Your task to perform on an android device: turn off location history Image 0: 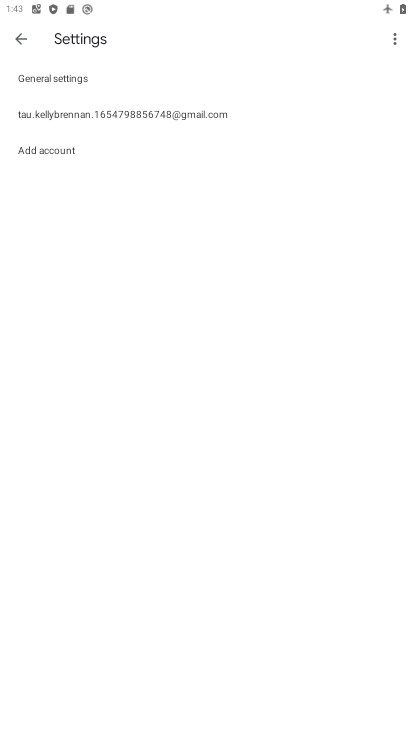
Step 0: press home button
Your task to perform on an android device: turn off location history Image 1: 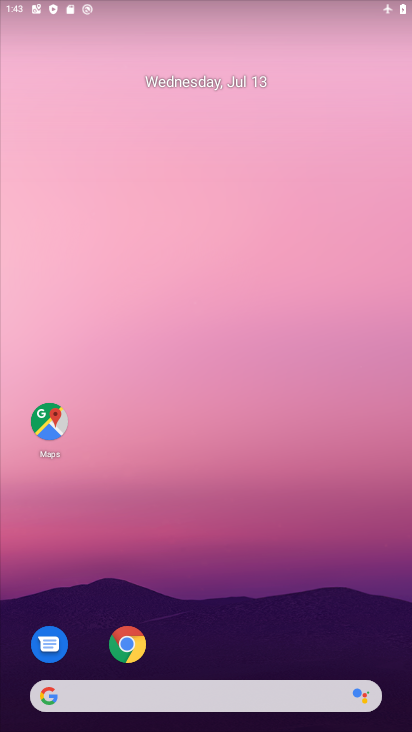
Step 1: drag from (301, 546) to (297, 121)
Your task to perform on an android device: turn off location history Image 2: 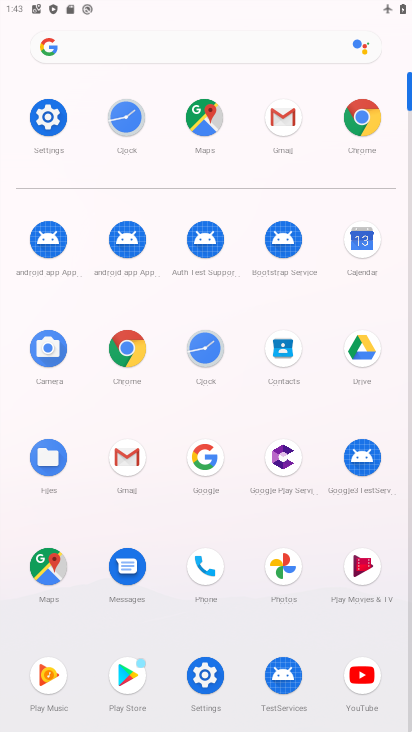
Step 2: click (53, 122)
Your task to perform on an android device: turn off location history Image 3: 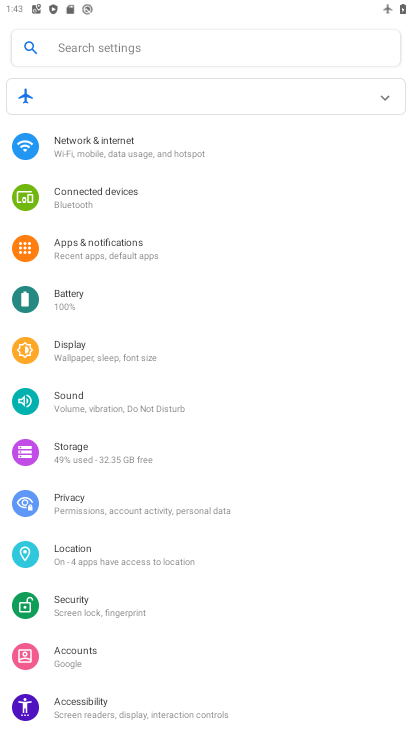
Step 3: click (99, 557)
Your task to perform on an android device: turn off location history Image 4: 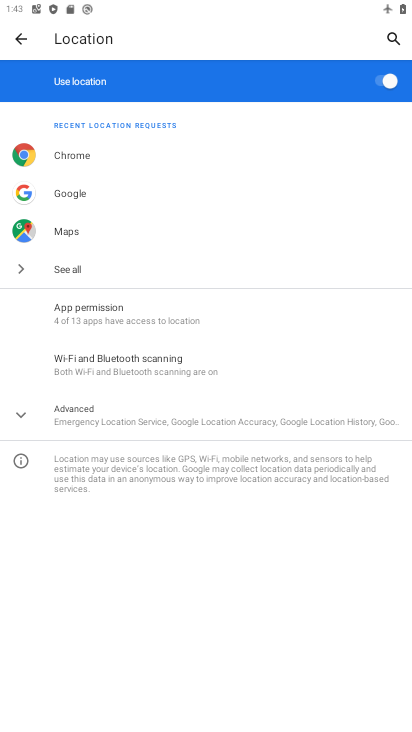
Step 4: click (145, 425)
Your task to perform on an android device: turn off location history Image 5: 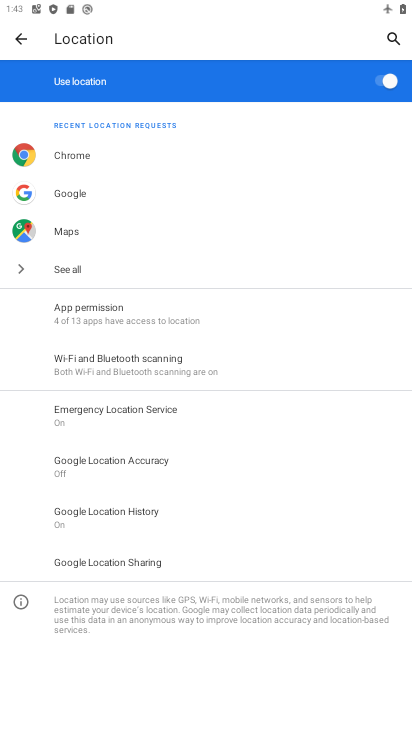
Step 5: click (144, 513)
Your task to perform on an android device: turn off location history Image 6: 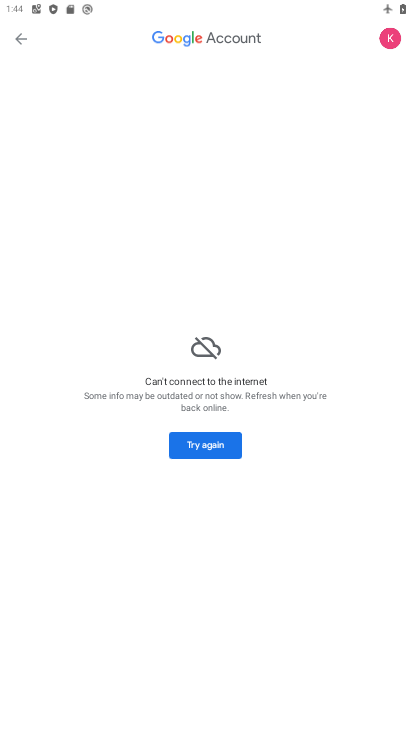
Step 6: task complete